Your task to perform on an android device: Turn on the flashlight Image 0: 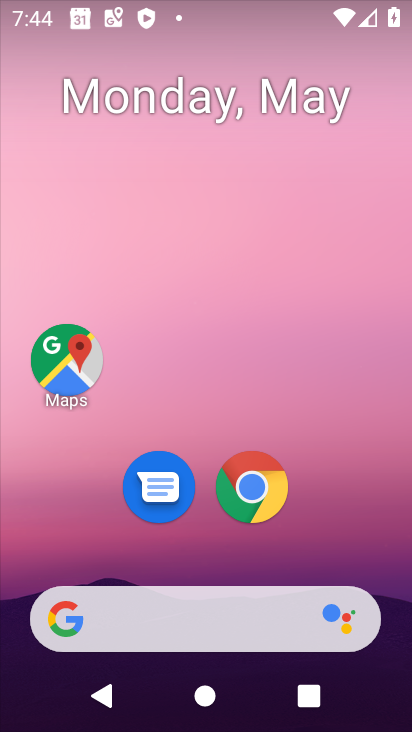
Step 0: drag from (225, 650) to (204, 3)
Your task to perform on an android device: Turn on the flashlight Image 1: 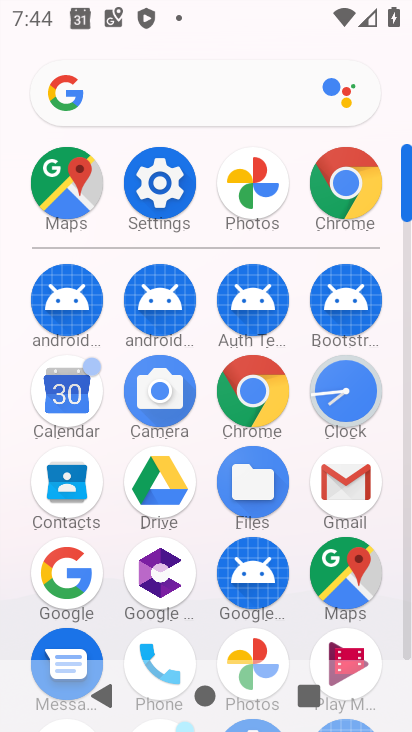
Step 1: click (159, 164)
Your task to perform on an android device: Turn on the flashlight Image 2: 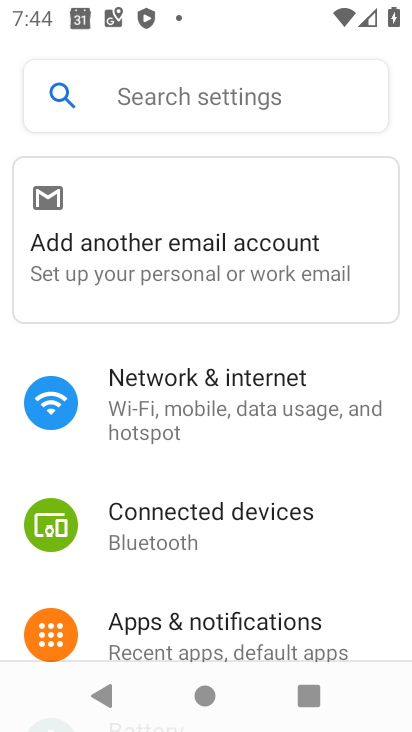
Step 2: click (147, 97)
Your task to perform on an android device: Turn on the flashlight Image 3: 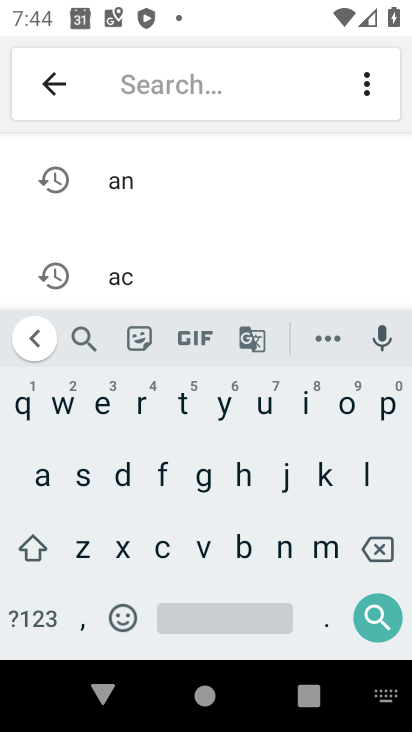
Step 3: click (164, 468)
Your task to perform on an android device: Turn on the flashlight Image 4: 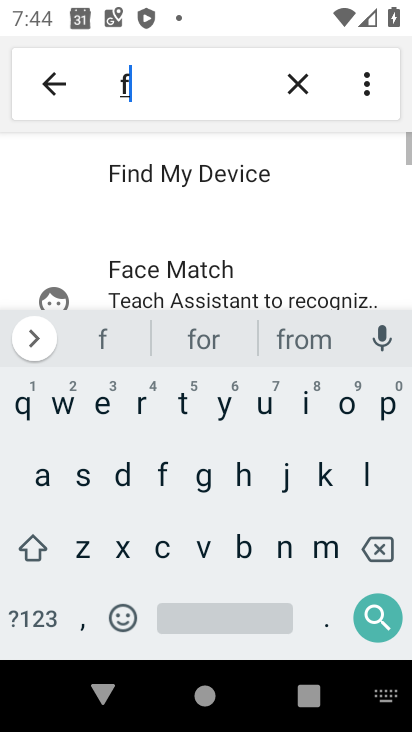
Step 4: click (366, 476)
Your task to perform on an android device: Turn on the flashlight Image 5: 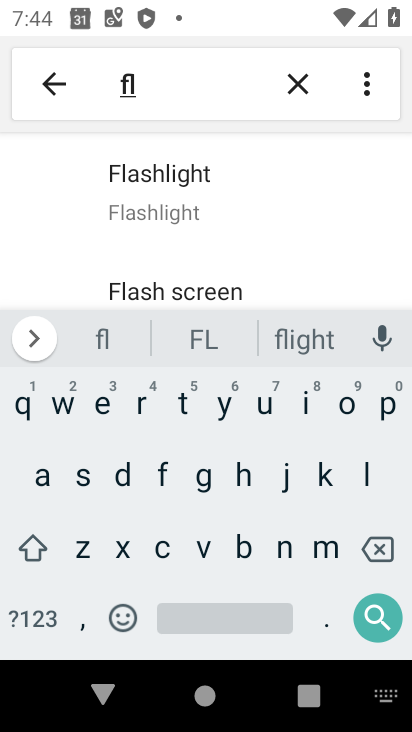
Step 5: click (177, 168)
Your task to perform on an android device: Turn on the flashlight Image 6: 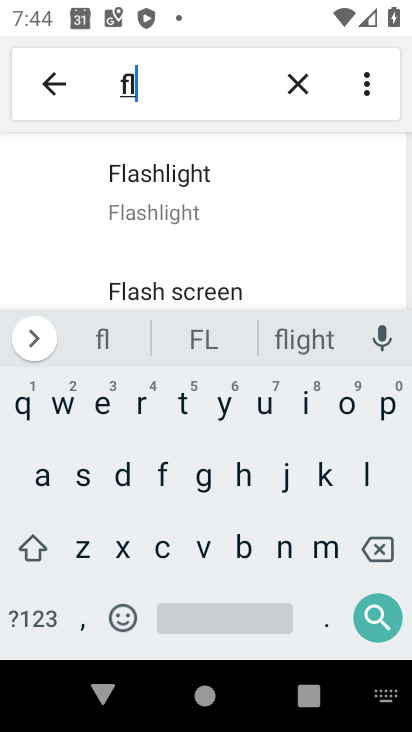
Step 6: task complete